Your task to perform on an android device: toggle javascript in the chrome app Image 0: 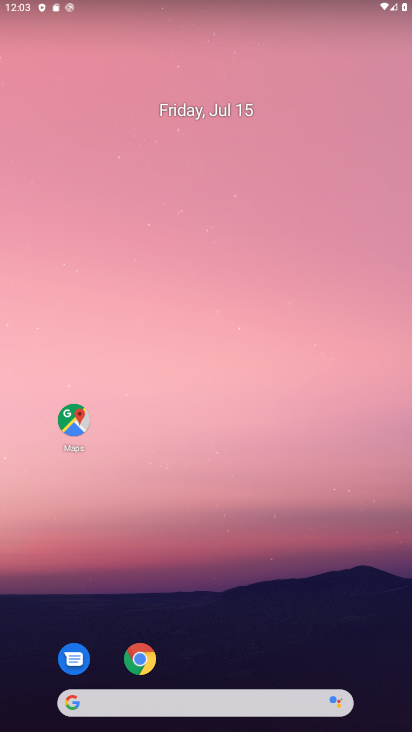
Step 0: click (147, 655)
Your task to perform on an android device: toggle javascript in the chrome app Image 1: 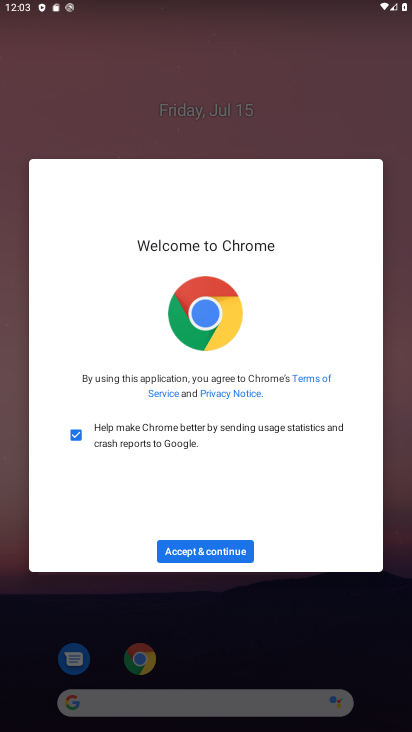
Step 1: click (208, 553)
Your task to perform on an android device: toggle javascript in the chrome app Image 2: 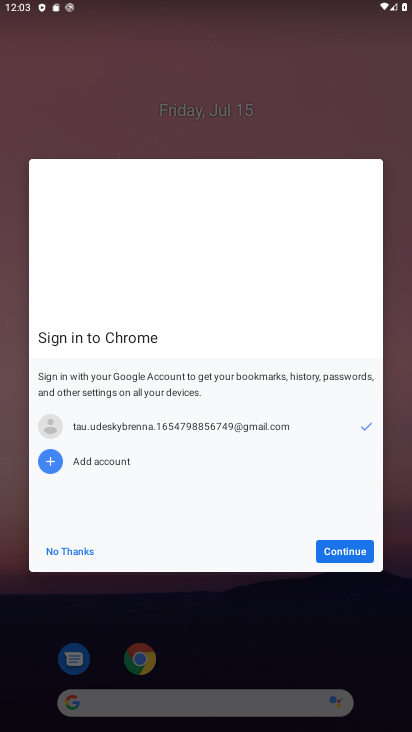
Step 2: click (330, 553)
Your task to perform on an android device: toggle javascript in the chrome app Image 3: 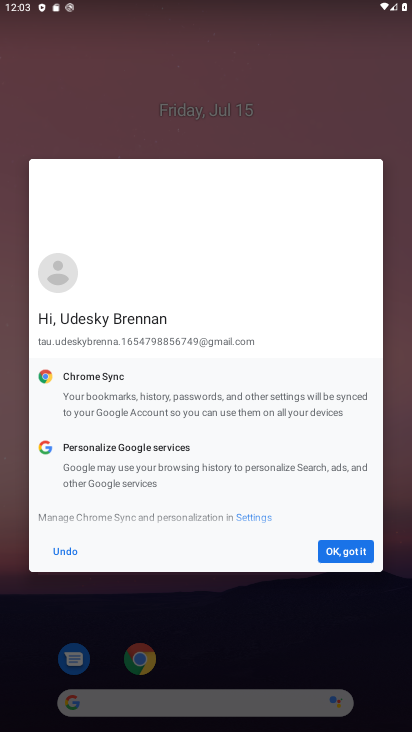
Step 3: click (330, 553)
Your task to perform on an android device: toggle javascript in the chrome app Image 4: 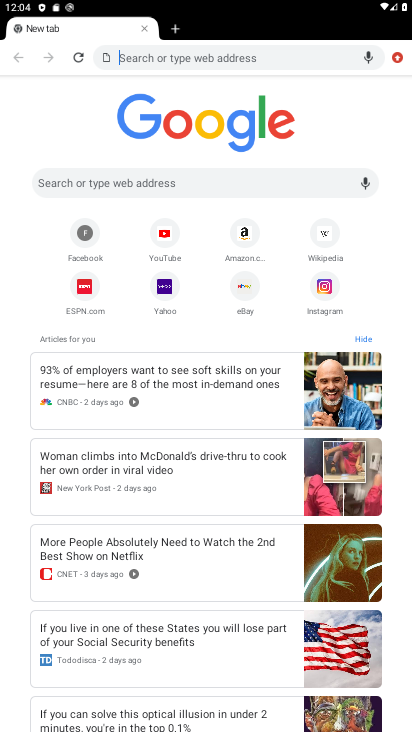
Step 4: click (391, 60)
Your task to perform on an android device: toggle javascript in the chrome app Image 5: 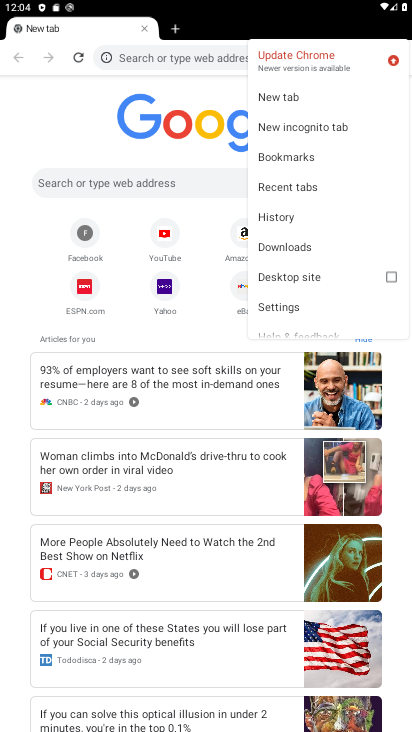
Step 5: click (287, 300)
Your task to perform on an android device: toggle javascript in the chrome app Image 6: 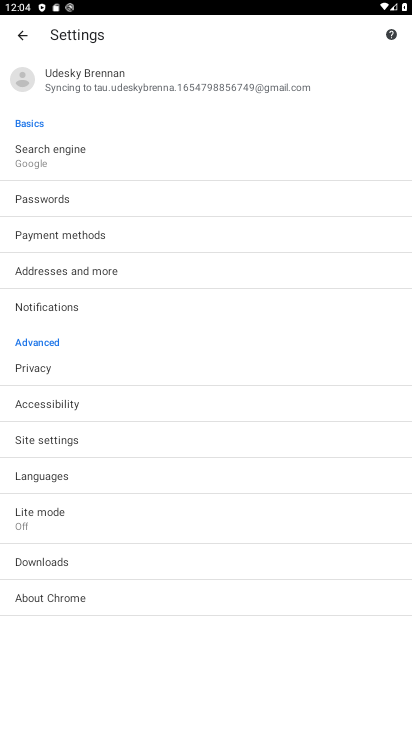
Step 6: click (79, 445)
Your task to perform on an android device: toggle javascript in the chrome app Image 7: 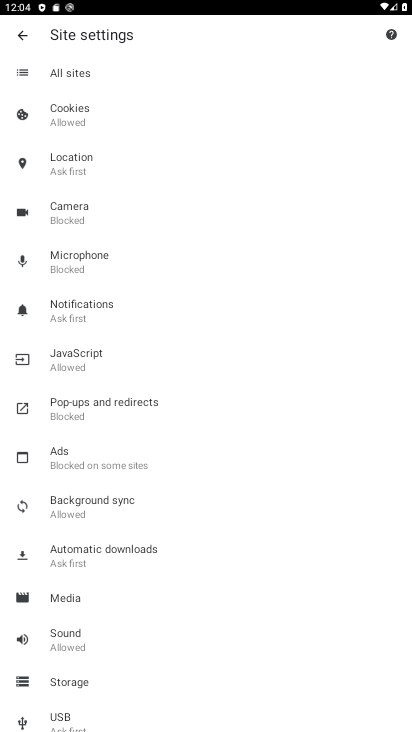
Step 7: click (44, 364)
Your task to perform on an android device: toggle javascript in the chrome app Image 8: 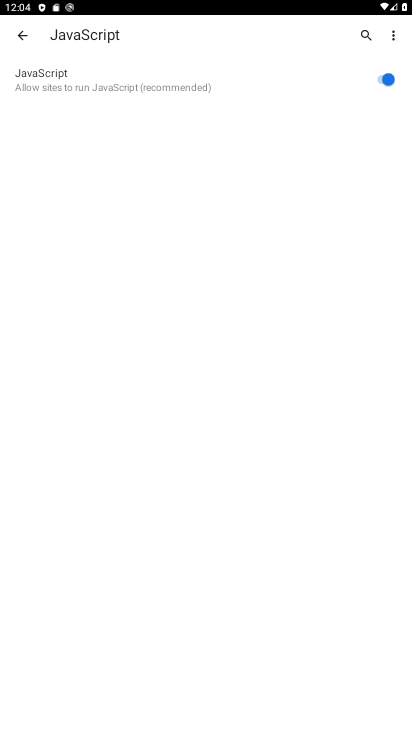
Step 8: click (372, 77)
Your task to perform on an android device: toggle javascript in the chrome app Image 9: 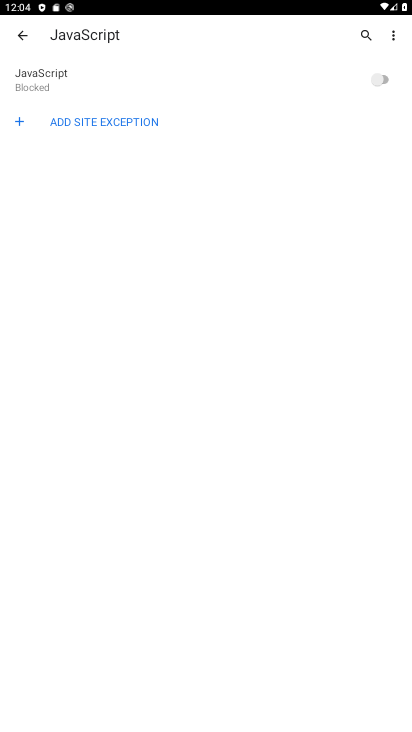
Step 9: task complete